Your task to perform on an android device: Turn on the flashlight Image 0: 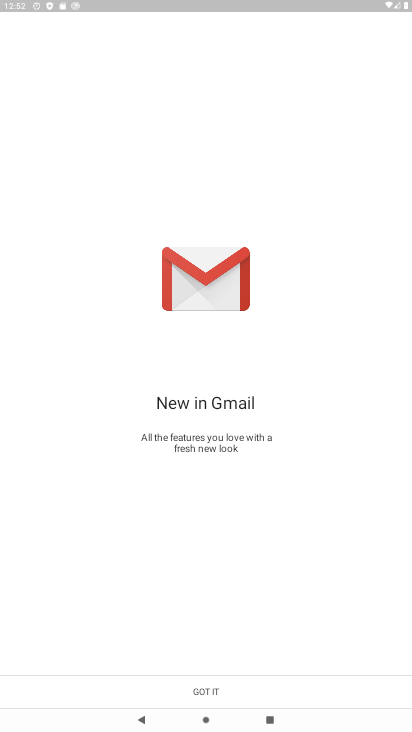
Step 0: press home button
Your task to perform on an android device: Turn on the flashlight Image 1: 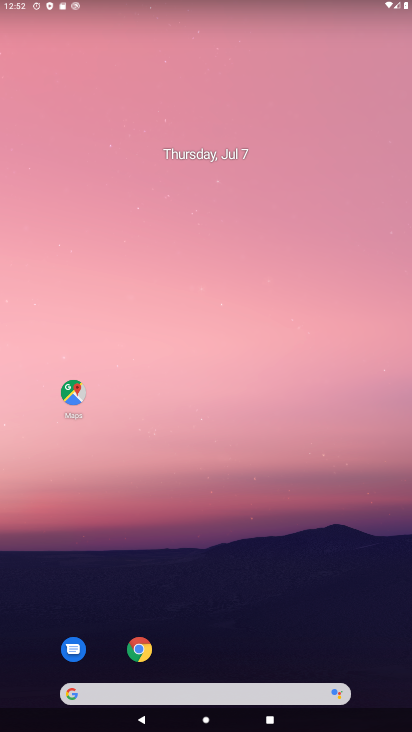
Step 1: drag from (190, 659) to (153, 304)
Your task to perform on an android device: Turn on the flashlight Image 2: 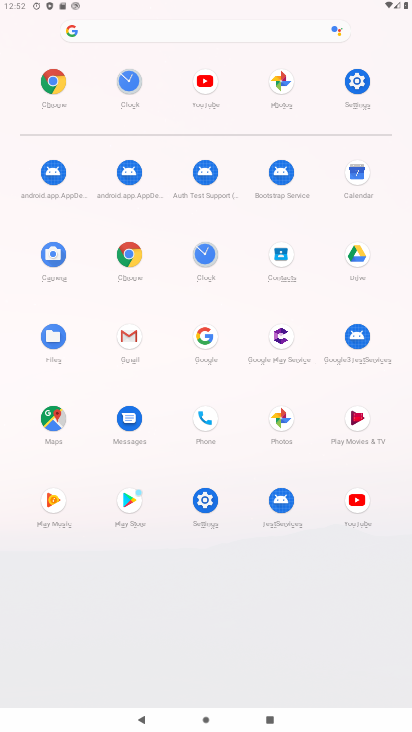
Step 2: click (202, 501)
Your task to perform on an android device: Turn on the flashlight Image 3: 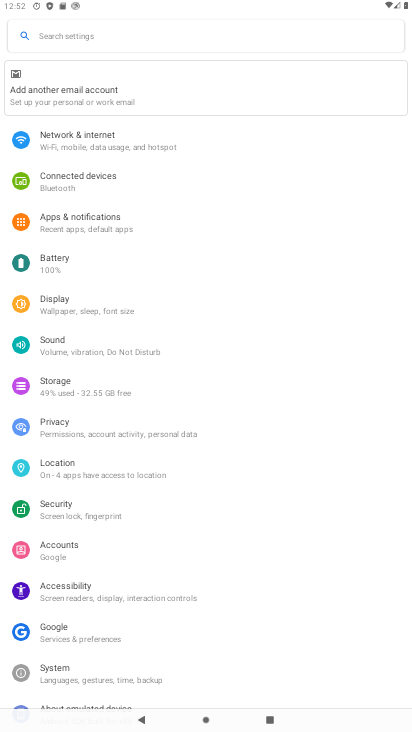
Step 3: task complete